Your task to perform on an android device: snooze an email in the gmail app Image 0: 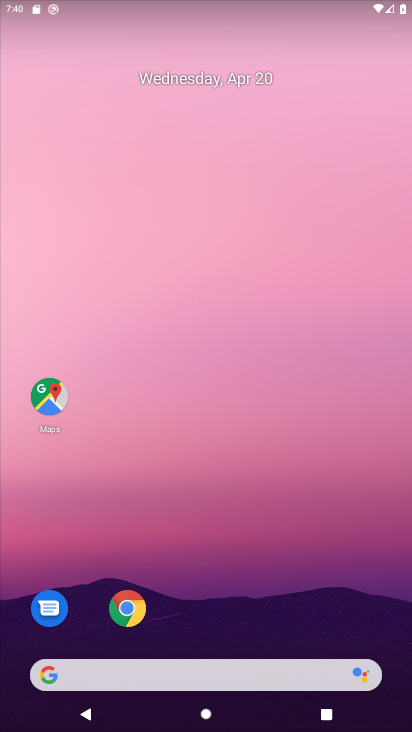
Step 0: drag from (178, 629) to (184, 206)
Your task to perform on an android device: snooze an email in the gmail app Image 1: 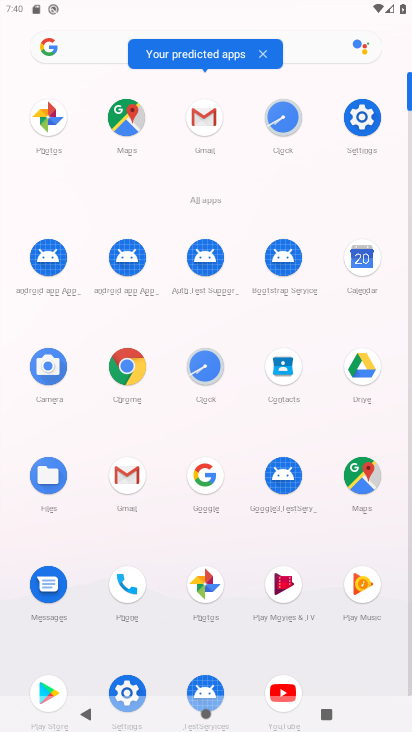
Step 1: click (197, 128)
Your task to perform on an android device: snooze an email in the gmail app Image 2: 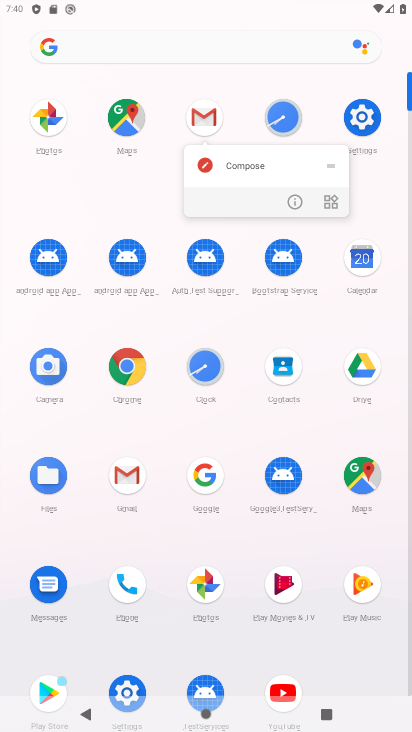
Step 2: click (201, 111)
Your task to perform on an android device: snooze an email in the gmail app Image 3: 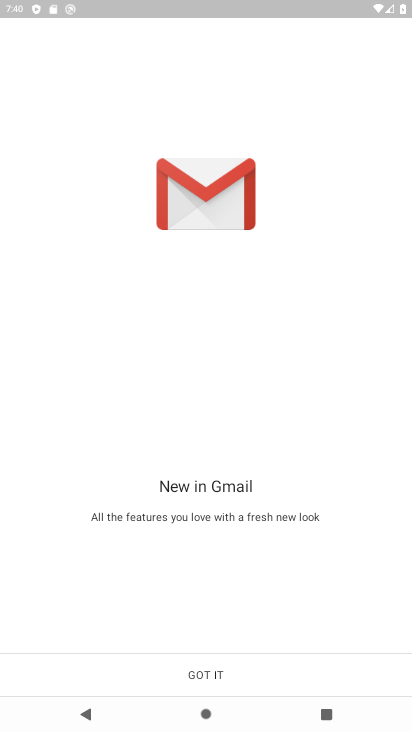
Step 3: click (206, 675)
Your task to perform on an android device: snooze an email in the gmail app Image 4: 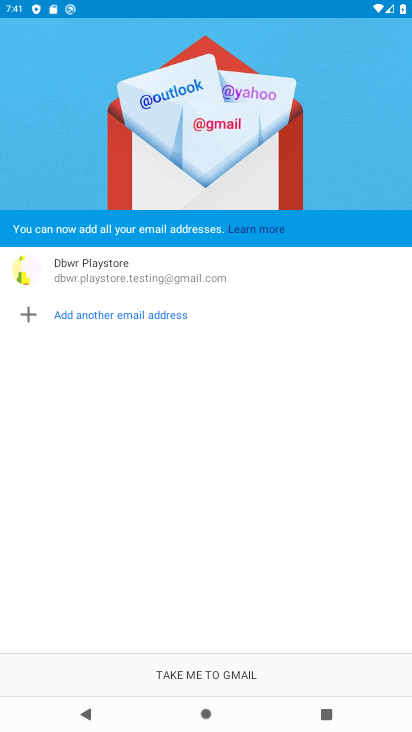
Step 4: click (232, 679)
Your task to perform on an android device: snooze an email in the gmail app Image 5: 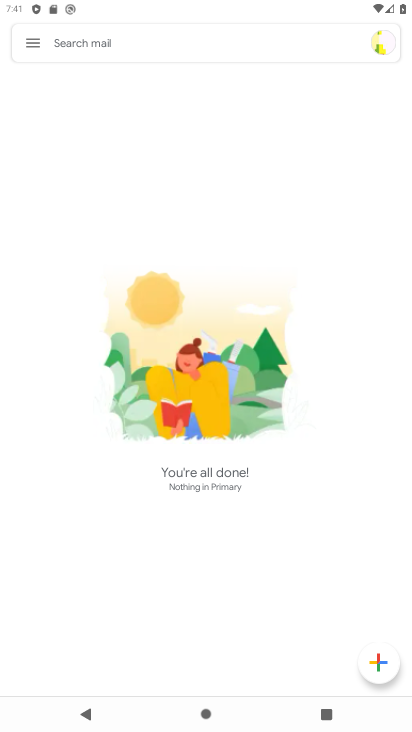
Step 5: task complete